Your task to perform on an android device: turn off wifi Image 0: 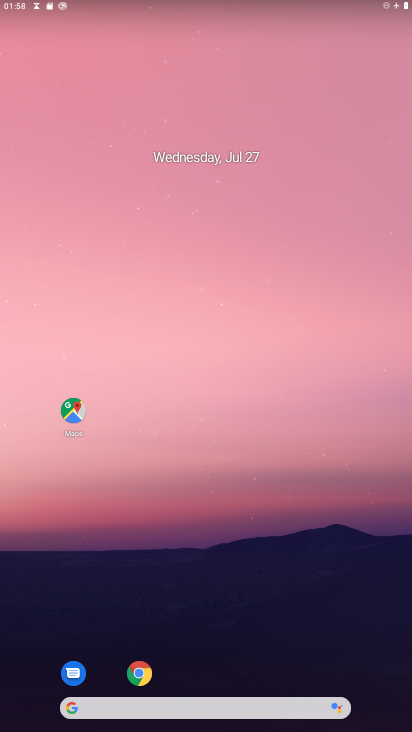
Step 0: drag from (240, 659) to (256, 259)
Your task to perform on an android device: turn off wifi Image 1: 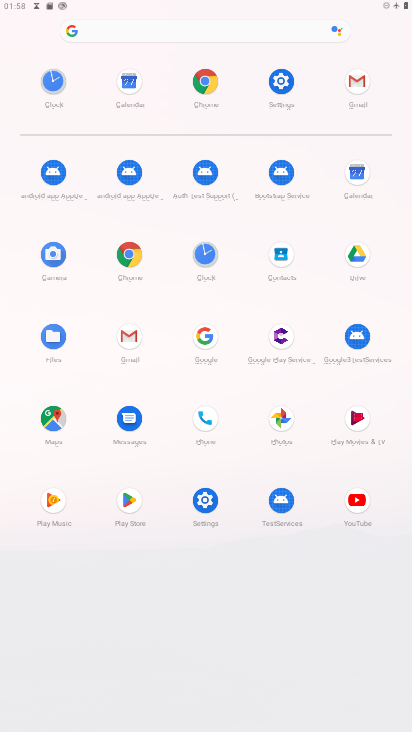
Step 1: click (296, 75)
Your task to perform on an android device: turn off wifi Image 2: 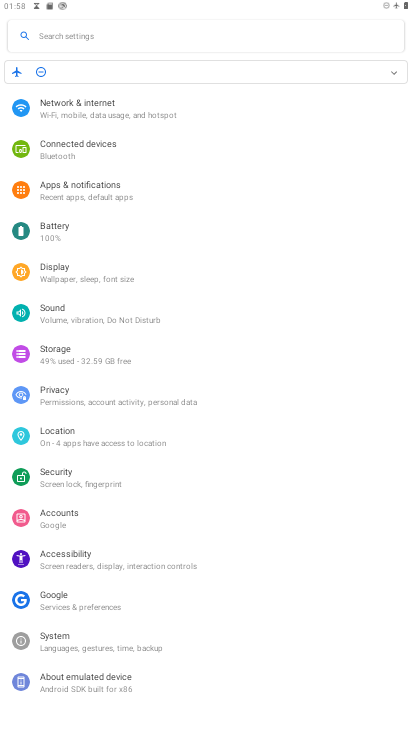
Step 2: click (168, 115)
Your task to perform on an android device: turn off wifi Image 3: 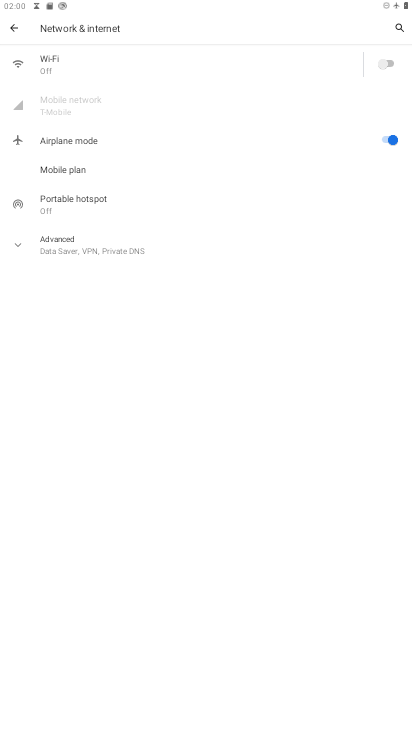
Step 3: task complete